Your task to perform on an android device: add a contact Image 0: 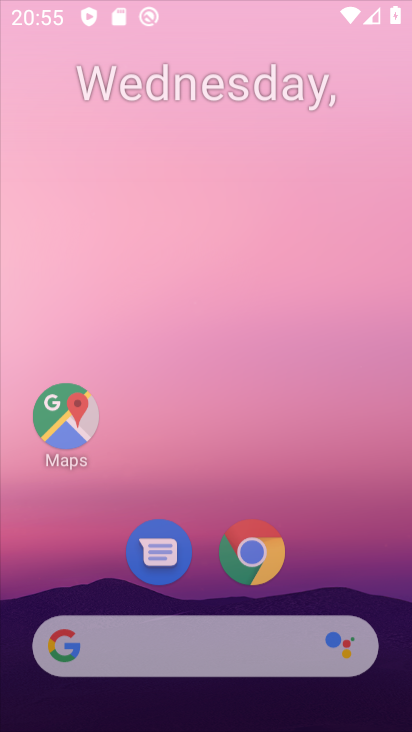
Step 0: click (335, 193)
Your task to perform on an android device: add a contact Image 1: 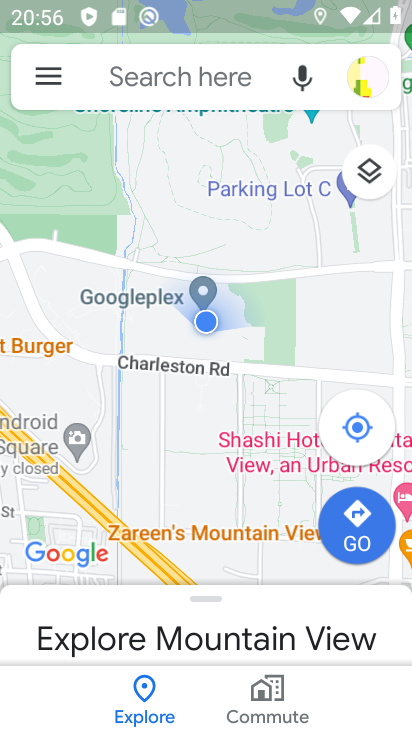
Step 1: press home button
Your task to perform on an android device: add a contact Image 2: 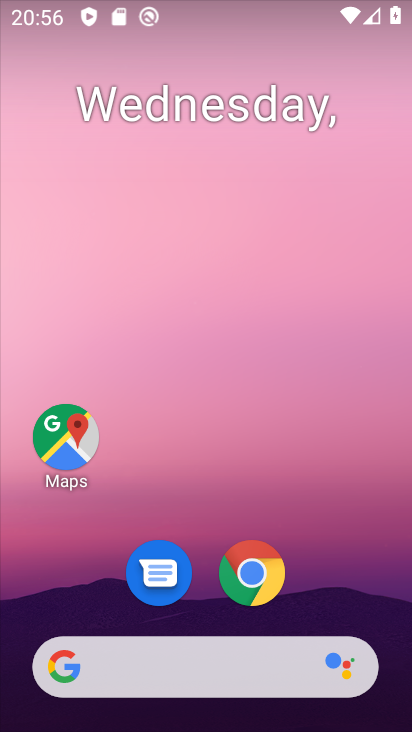
Step 2: drag from (375, 331) to (364, 169)
Your task to perform on an android device: add a contact Image 3: 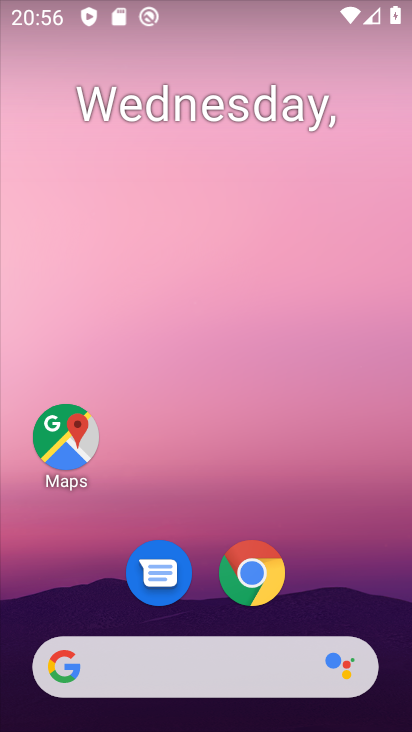
Step 3: drag from (407, 380) to (411, 136)
Your task to perform on an android device: add a contact Image 4: 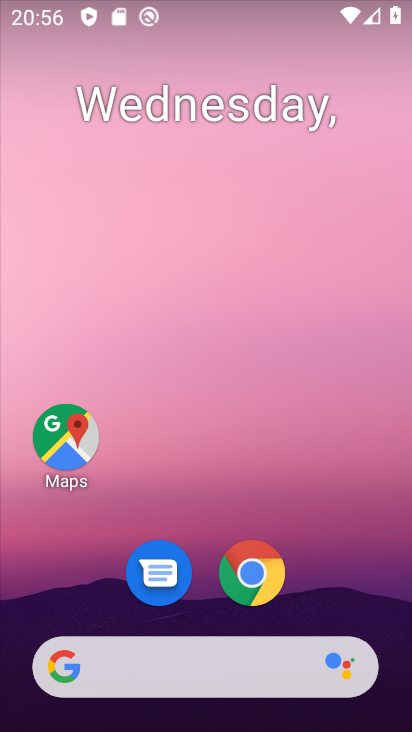
Step 4: click (400, 38)
Your task to perform on an android device: add a contact Image 5: 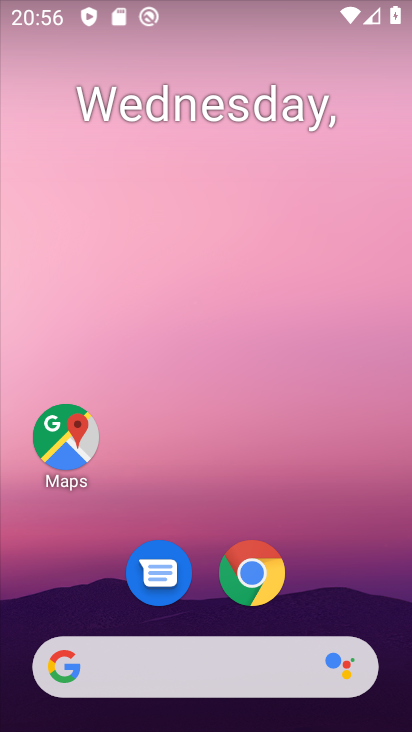
Step 5: click (401, 259)
Your task to perform on an android device: add a contact Image 6: 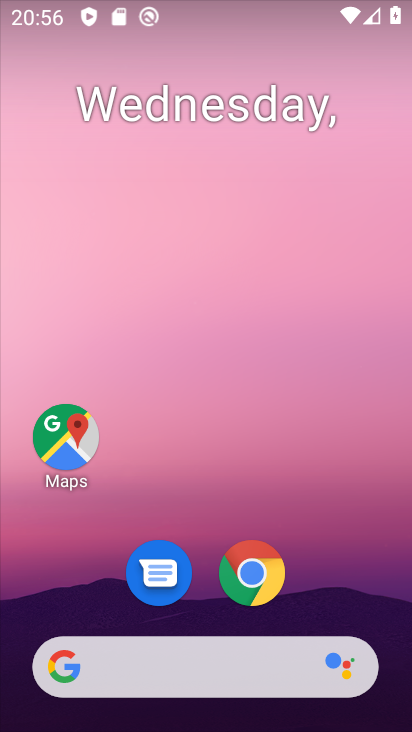
Step 6: drag from (398, 336) to (399, 169)
Your task to perform on an android device: add a contact Image 7: 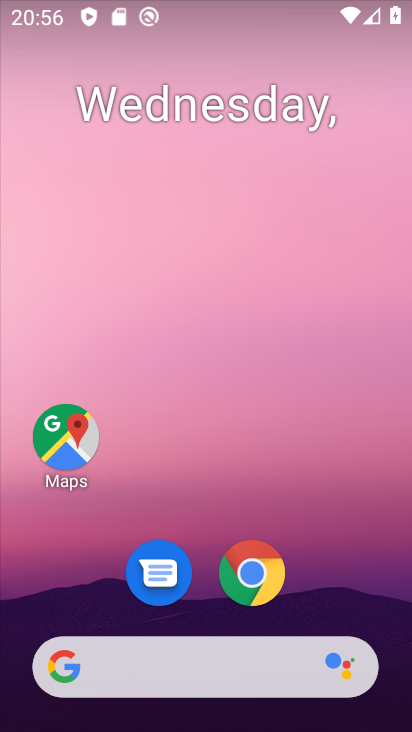
Step 7: drag from (369, 454) to (391, 139)
Your task to perform on an android device: add a contact Image 8: 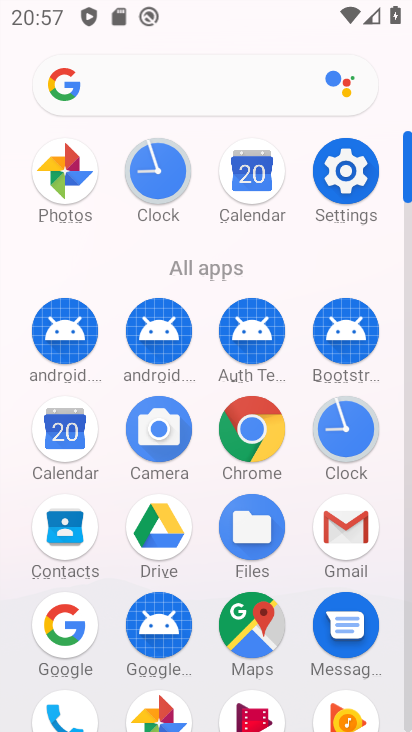
Step 8: drag from (394, 137) to (389, 96)
Your task to perform on an android device: add a contact Image 9: 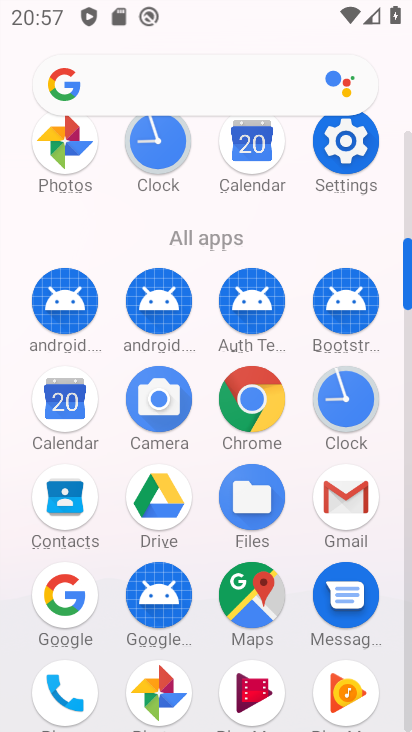
Step 9: click (55, 510)
Your task to perform on an android device: add a contact Image 10: 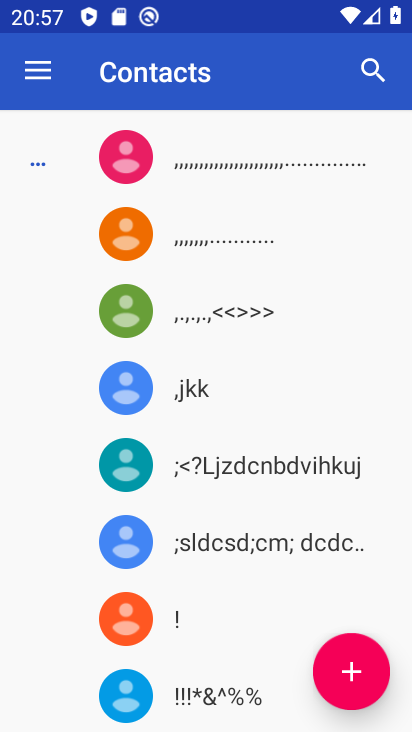
Step 10: click (329, 651)
Your task to perform on an android device: add a contact Image 11: 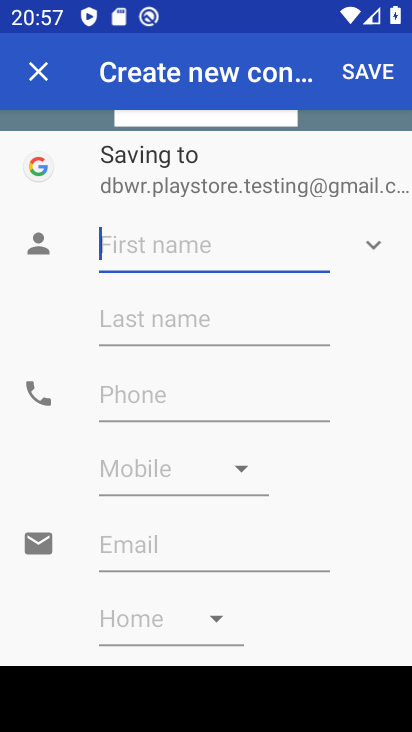
Step 11: click (172, 249)
Your task to perform on an android device: add a contact Image 12: 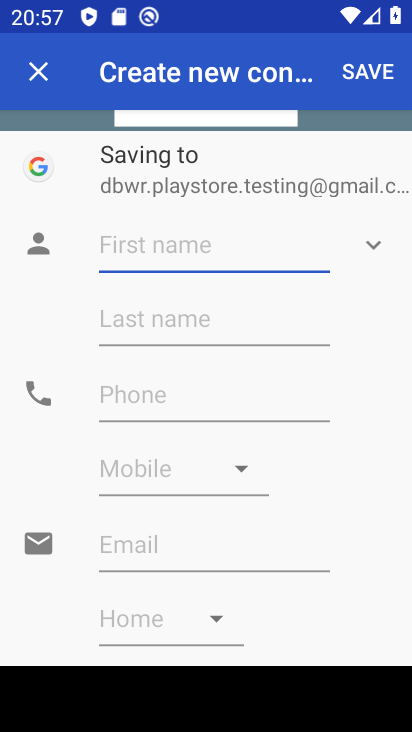
Step 12: type "fdfdfdfffd"
Your task to perform on an android device: add a contact Image 13: 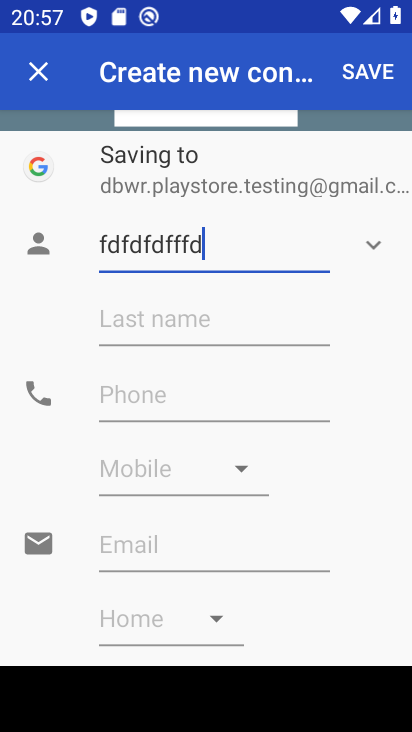
Step 13: click (292, 335)
Your task to perform on an android device: add a contact Image 14: 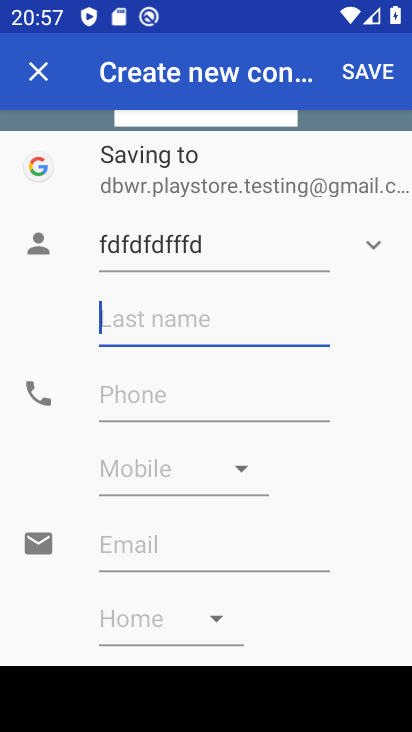
Step 14: type "fdfdjhddhhg"
Your task to perform on an android device: add a contact Image 15: 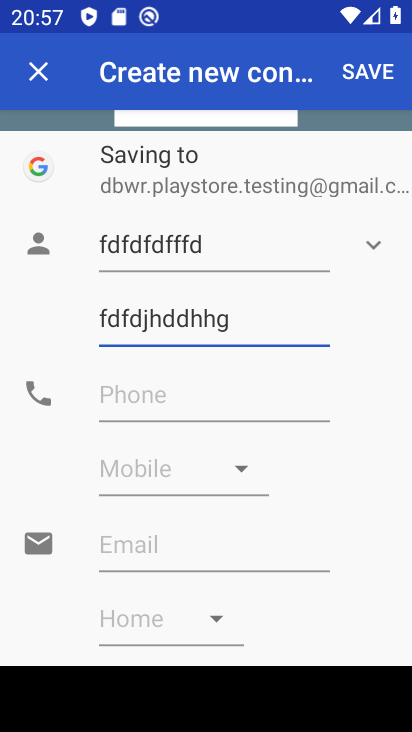
Step 15: click (182, 386)
Your task to perform on an android device: add a contact Image 16: 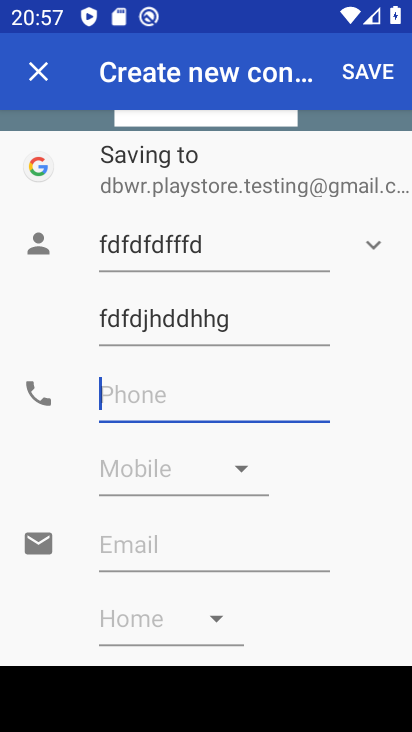
Step 16: type "545456573736737"
Your task to perform on an android device: add a contact Image 17: 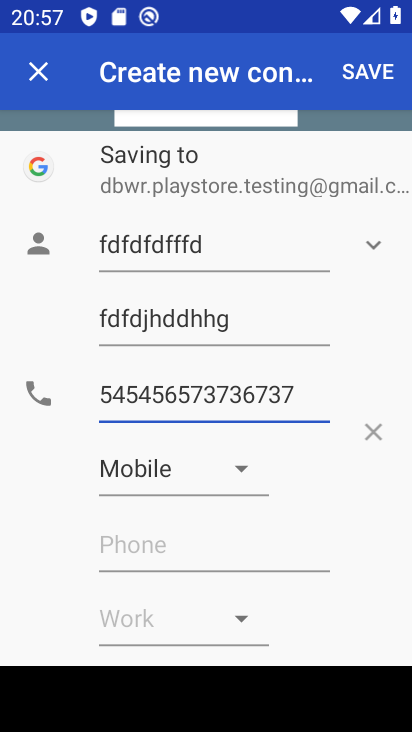
Step 17: click (369, 69)
Your task to perform on an android device: add a contact Image 18: 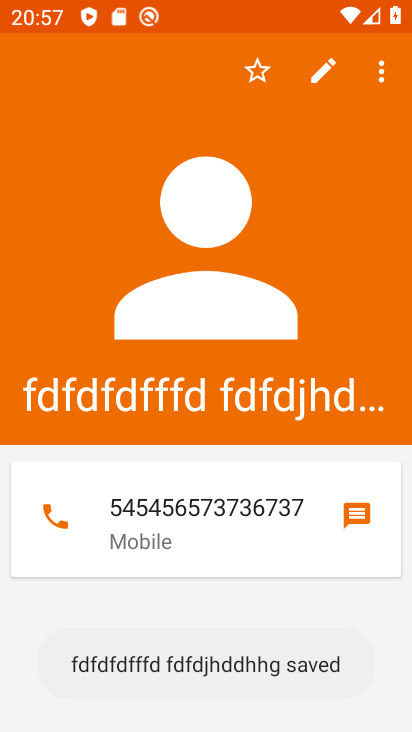
Step 18: task complete